Your task to perform on an android device: Open location settings Image 0: 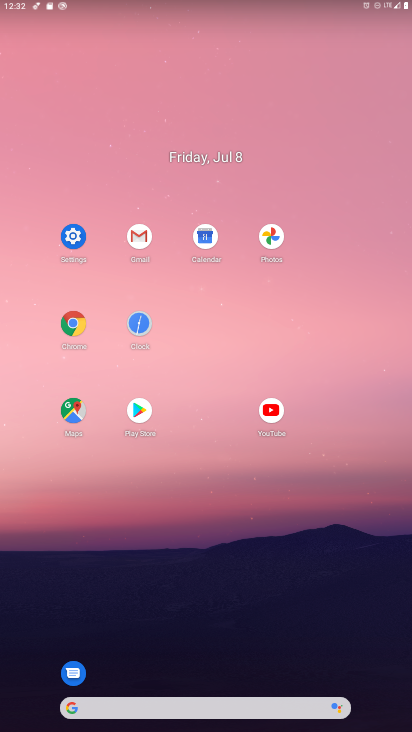
Step 0: click (71, 228)
Your task to perform on an android device: Open location settings Image 1: 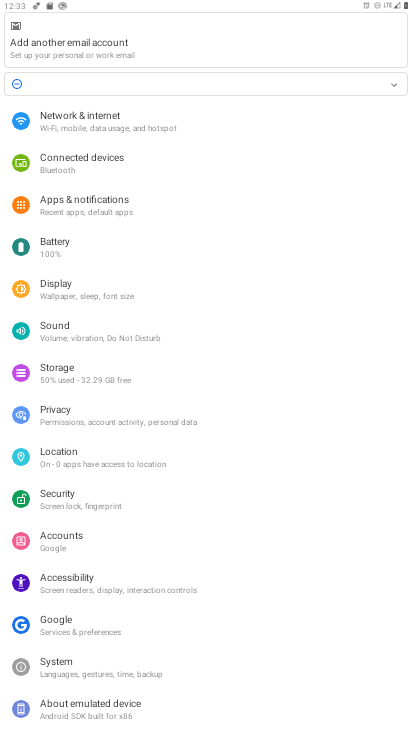
Step 1: click (91, 457)
Your task to perform on an android device: Open location settings Image 2: 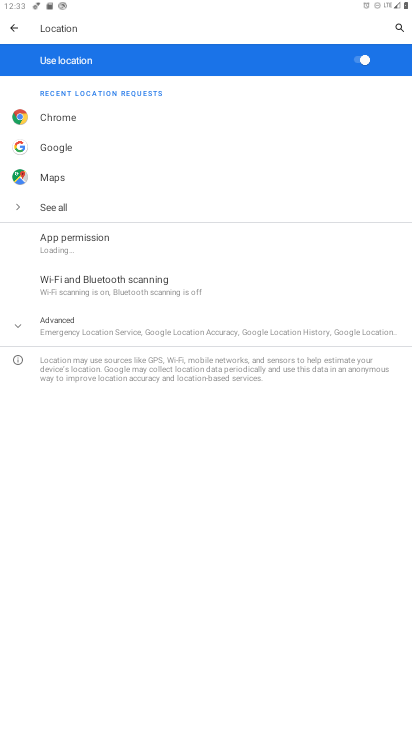
Step 2: task complete